Your task to perform on an android device: turn pop-ups on in chrome Image 0: 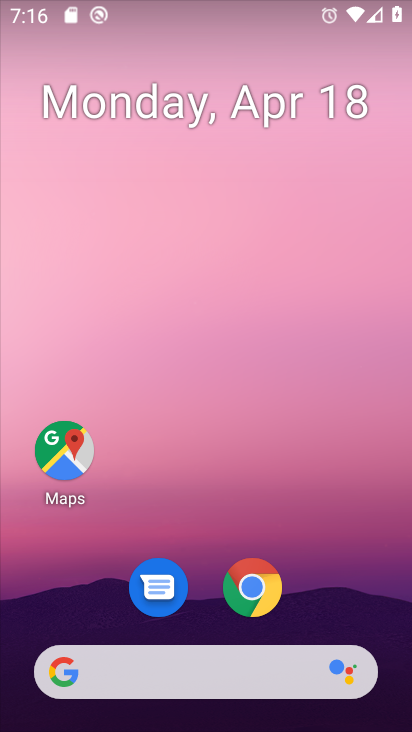
Step 0: drag from (318, 600) to (316, 68)
Your task to perform on an android device: turn pop-ups on in chrome Image 1: 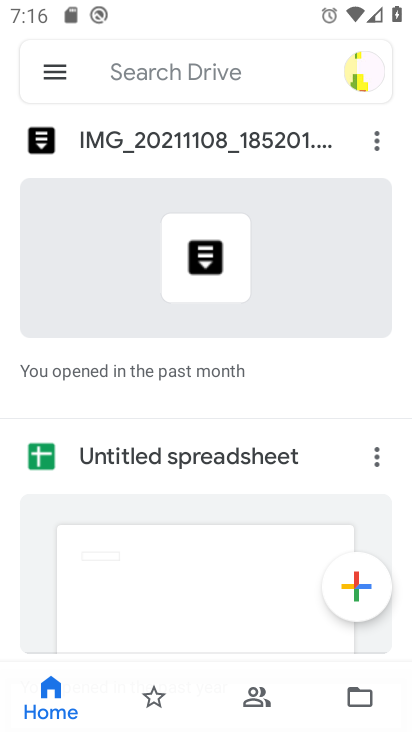
Step 1: press back button
Your task to perform on an android device: turn pop-ups on in chrome Image 2: 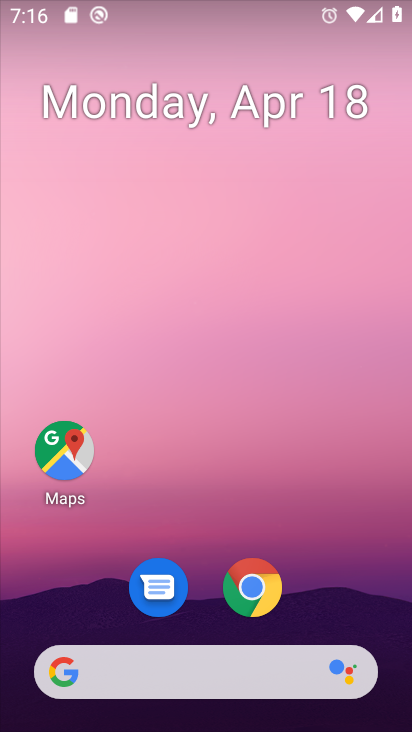
Step 2: click (264, 575)
Your task to perform on an android device: turn pop-ups on in chrome Image 3: 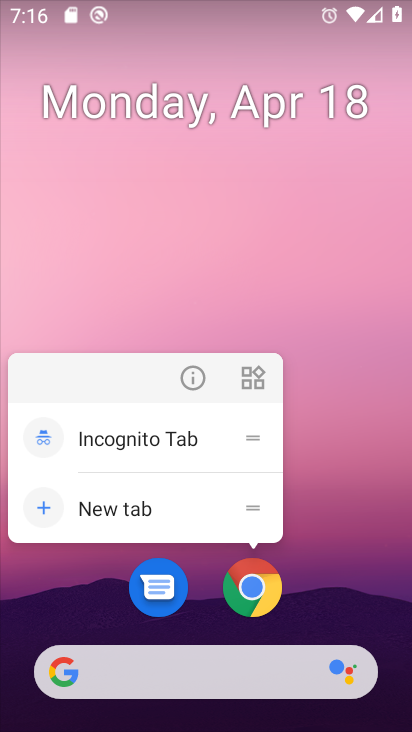
Step 3: click (264, 575)
Your task to perform on an android device: turn pop-ups on in chrome Image 4: 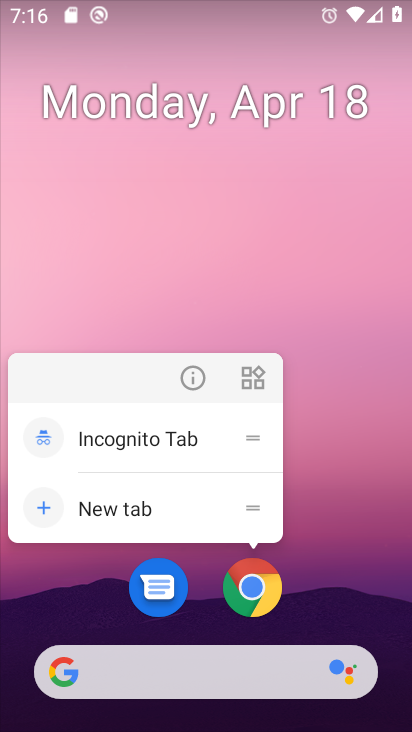
Step 4: click (254, 590)
Your task to perform on an android device: turn pop-ups on in chrome Image 5: 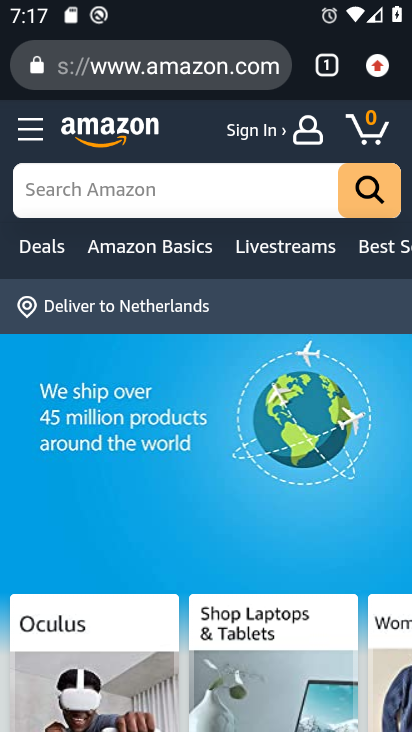
Step 5: click (376, 68)
Your task to perform on an android device: turn pop-ups on in chrome Image 6: 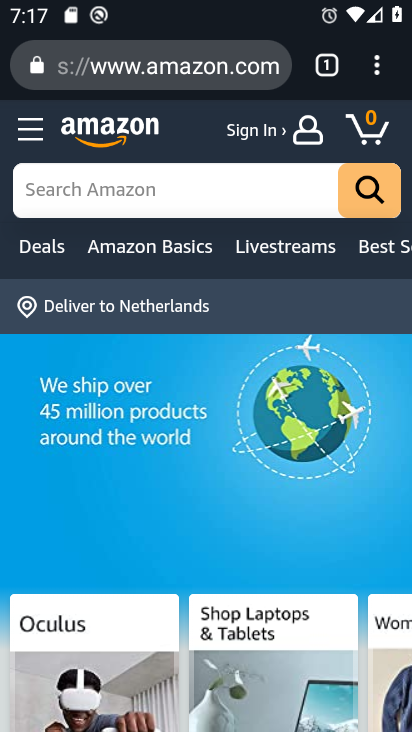
Step 6: click (371, 69)
Your task to perform on an android device: turn pop-ups on in chrome Image 7: 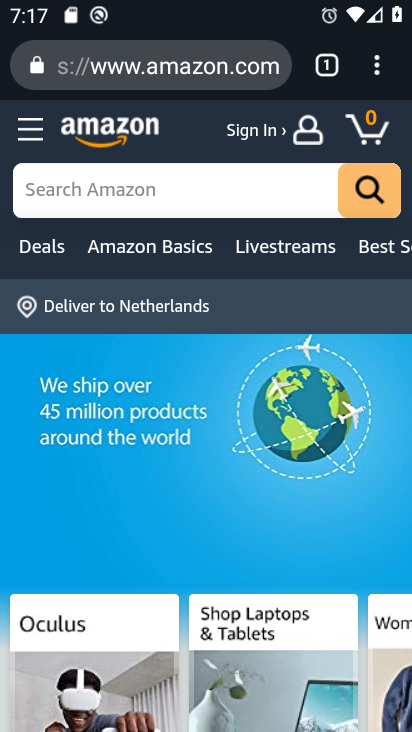
Step 7: click (374, 76)
Your task to perform on an android device: turn pop-ups on in chrome Image 8: 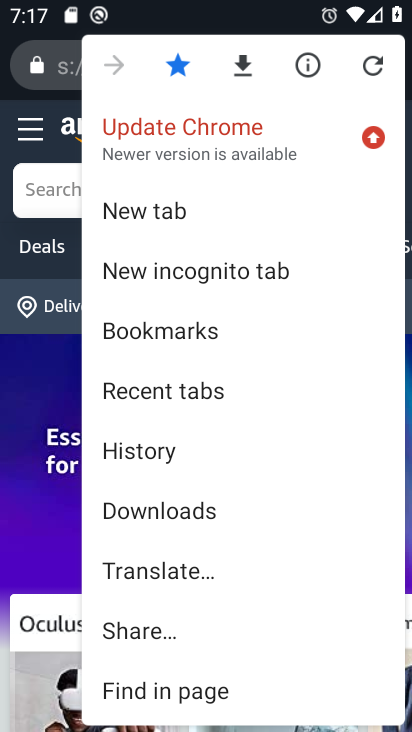
Step 8: drag from (175, 602) to (199, 335)
Your task to perform on an android device: turn pop-ups on in chrome Image 9: 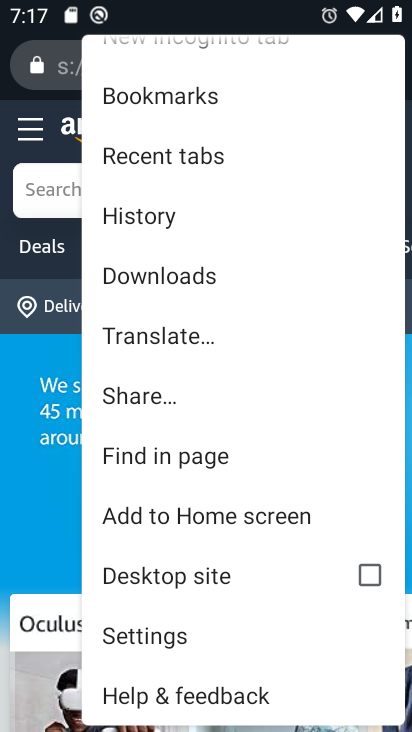
Step 9: click (200, 626)
Your task to perform on an android device: turn pop-ups on in chrome Image 10: 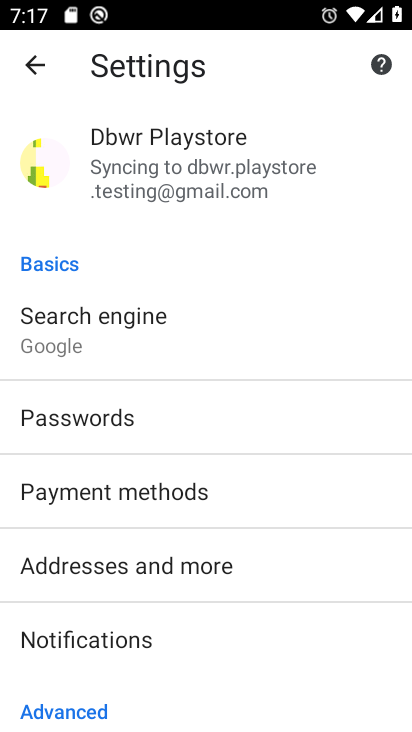
Step 10: drag from (200, 626) to (225, 250)
Your task to perform on an android device: turn pop-ups on in chrome Image 11: 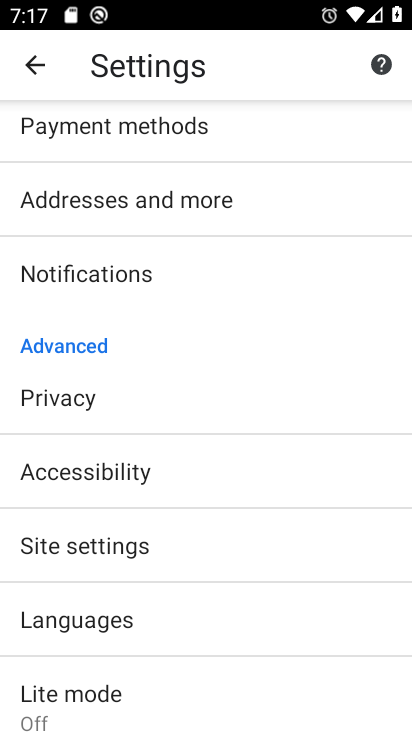
Step 11: click (212, 569)
Your task to perform on an android device: turn pop-ups on in chrome Image 12: 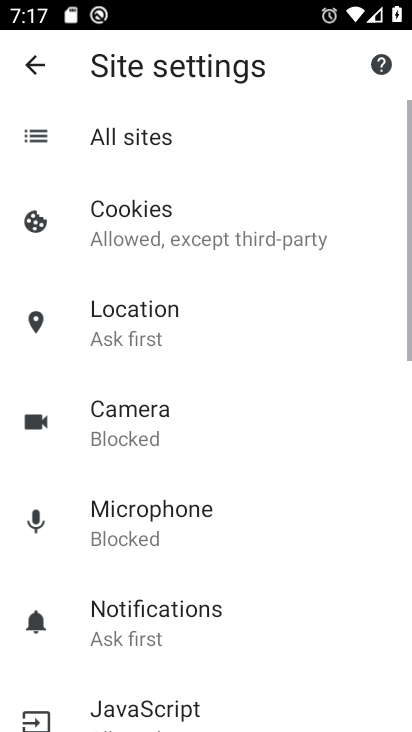
Step 12: drag from (275, 670) to (285, 287)
Your task to perform on an android device: turn pop-ups on in chrome Image 13: 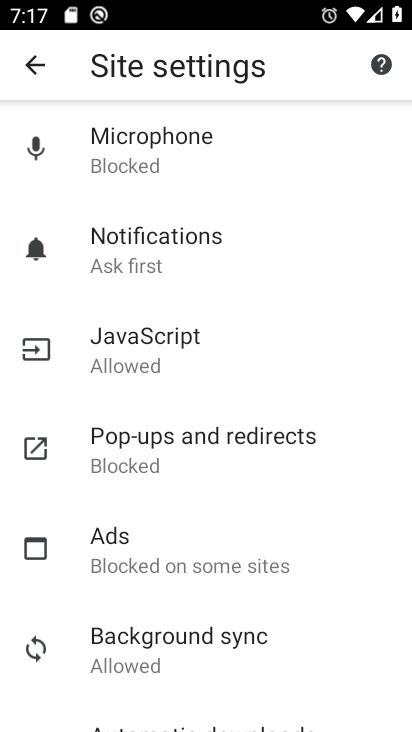
Step 13: click (263, 426)
Your task to perform on an android device: turn pop-ups on in chrome Image 14: 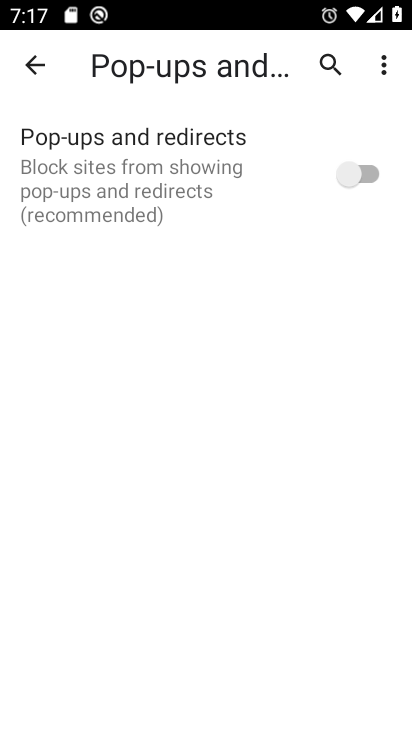
Step 14: click (344, 187)
Your task to perform on an android device: turn pop-ups on in chrome Image 15: 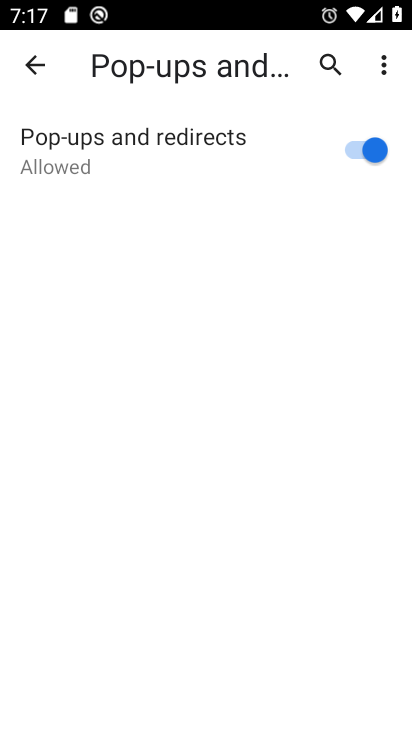
Step 15: task complete